Your task to perform on an android device: add a contact Image 0: 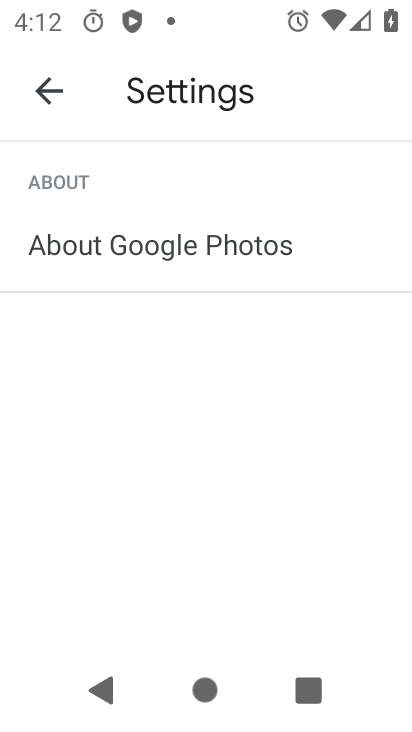
Step 0: press home button
Your task to perform on an android device: add a contact Image 1: 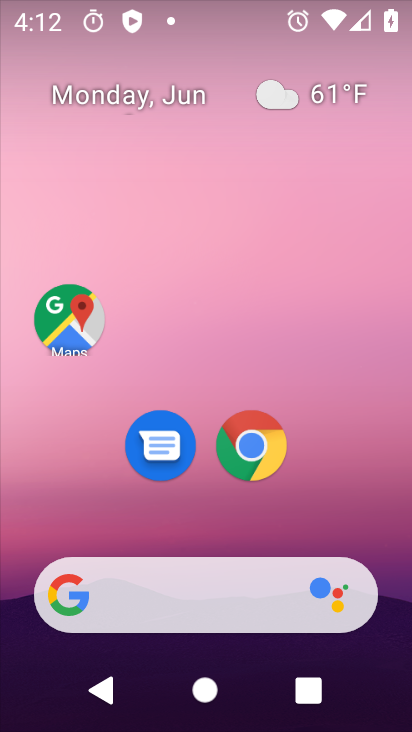
Step 1: drag from (213, 539) to (197, 207)
Your task to perform on an android device: add a contact Image 2: 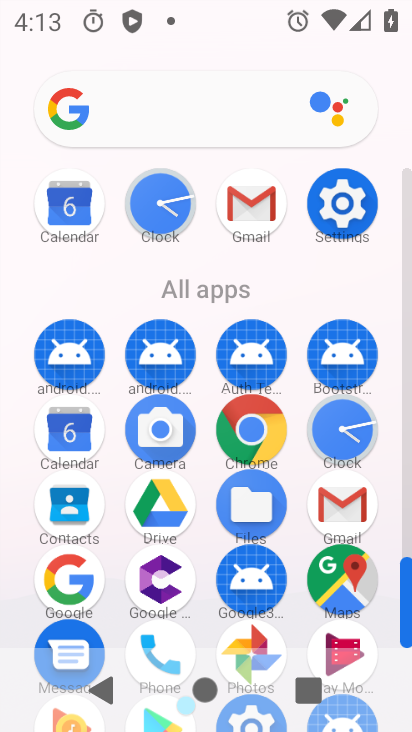
Step 2: click (72, 513)
Your task to perform on an android device: add a contact Image 3: 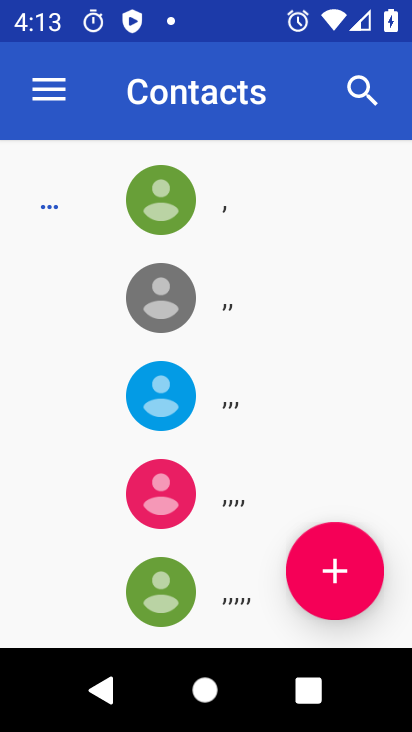
Step 3: click (320, 582)
Your task to perform on an android device: add a contact Image 4: 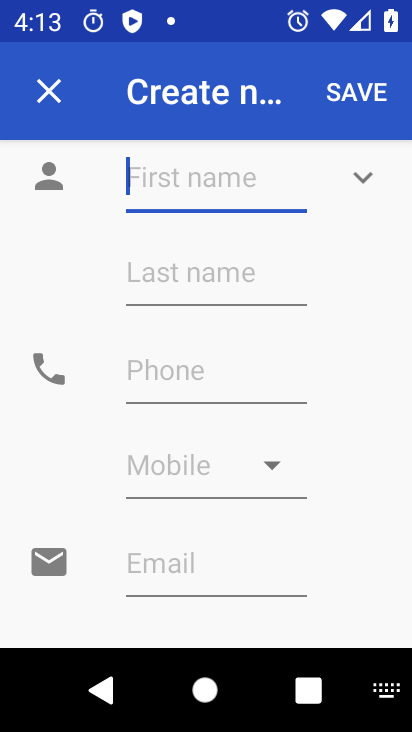
Step 4: type "Modi"
Your task to perform on an android device: add a contact Image 5: 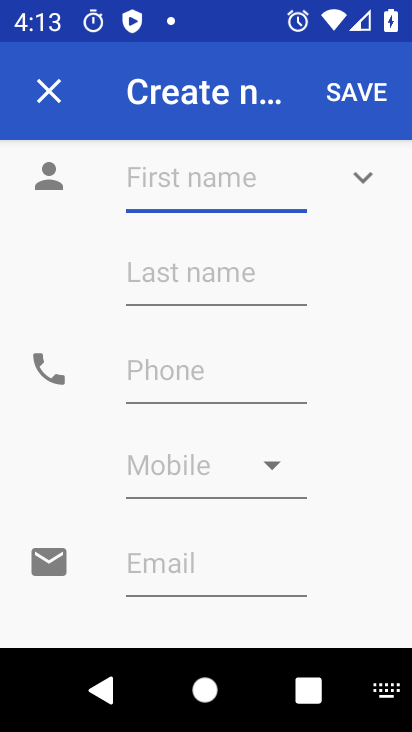
Step 5: click (227, 290)
Your task to perform on an android device: add a contact Image 6: 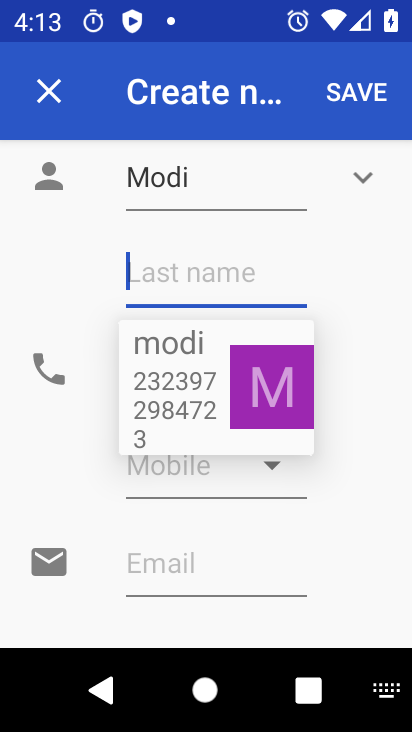
Step 6: type "Ji"
Your task to perform on an android device: add a contact Image 7: 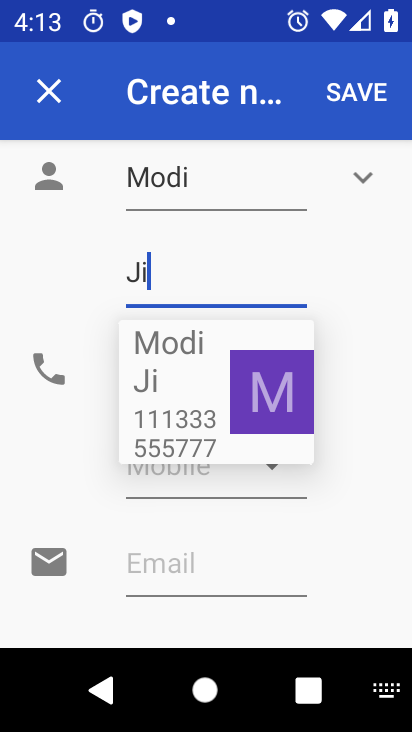
Step 7: click (378, 439)
Your task to perform on an android device: add a contact Image 8: 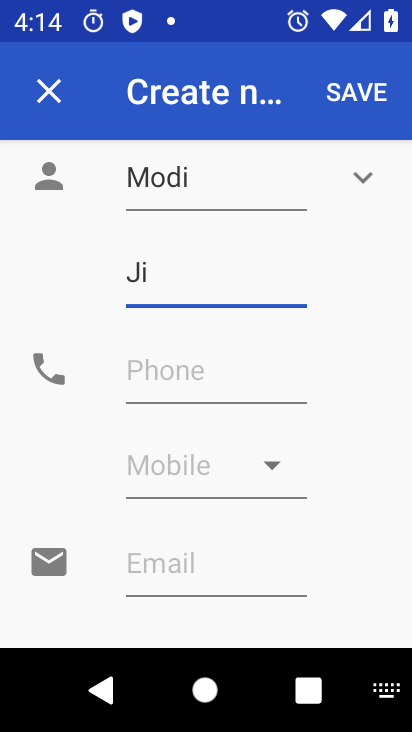
Step 8: click (172, 374)
Your task to perform on an android device: add a contact Image 9: 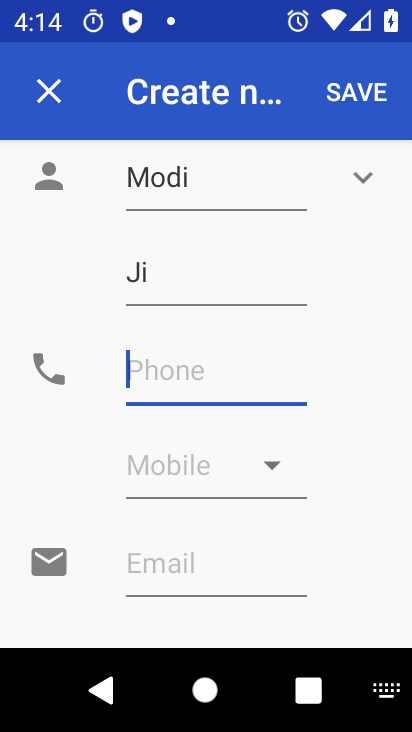
Step 9: type "6776677678"
Your task to perform on an android device: add a contact Image 10: 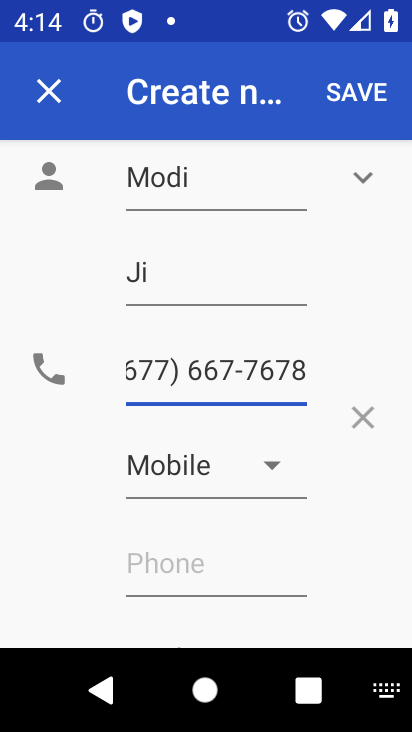
Step 10: click (356, 105)
Your task to perform on an android device: add a contact Image 11: 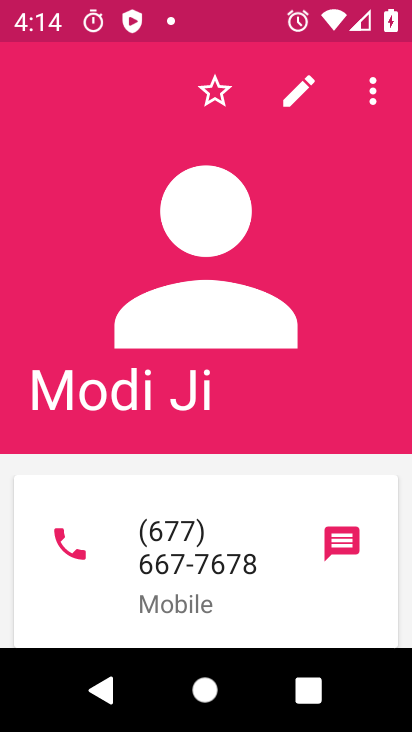
Step 11: task complete